Your task to perform on an android device: change notifications settings Image 0: 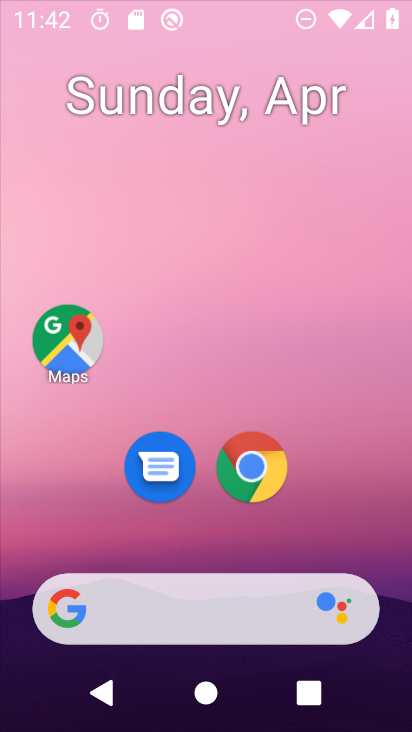
Step 0: drag from (348, 510) to (350, 311)
Your task to perform on an android device: change notifications settings Image 1: 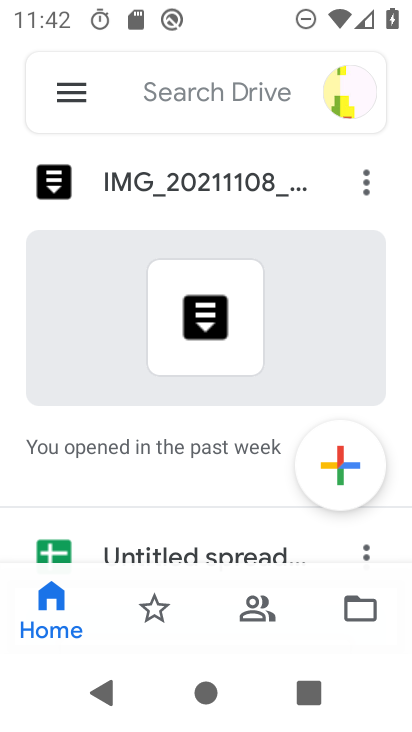
Step 1: press home button
Your task to perform on an android device: change notifications settings Image 2: 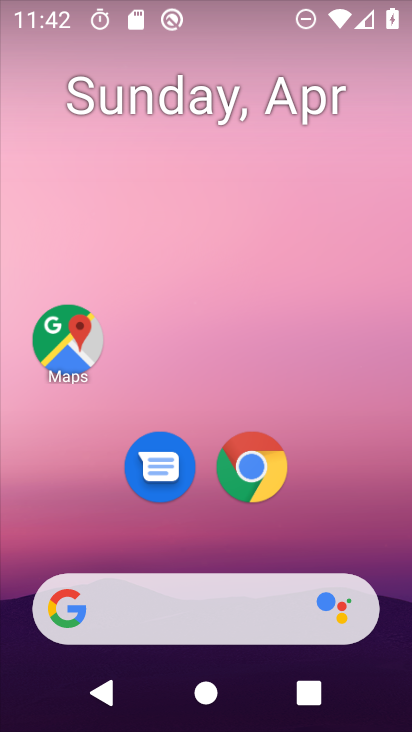
Step 2: drag from (361, 474) to (386, 147)
Your task to perform on an android device: change notifications settings Image 3: 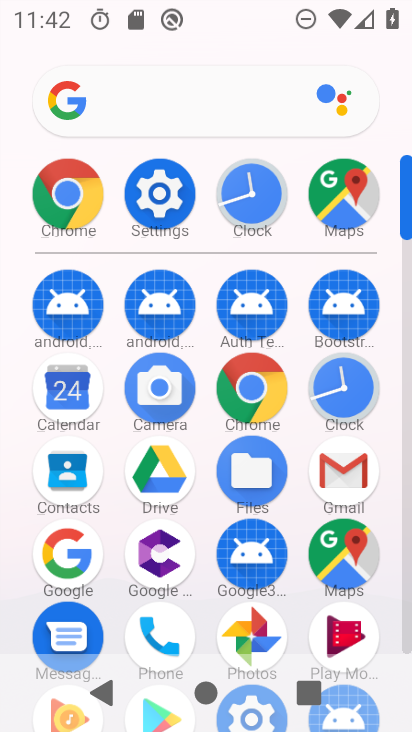
Step 3: click (151, 200)
Your task to perform on an android device: change notifications settings Image 4: 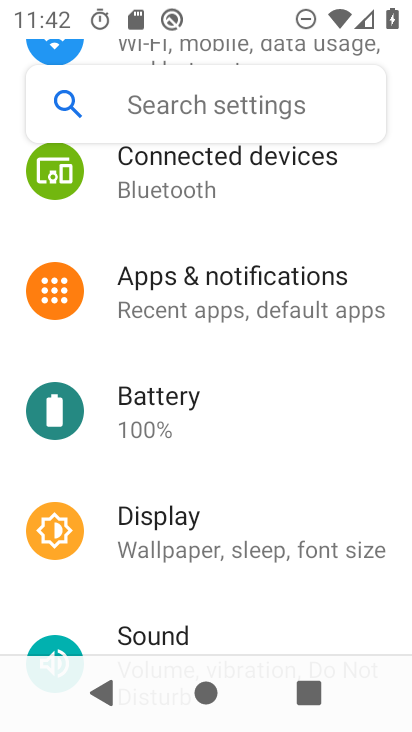
Step 4: drag from (369, 482) to (387, 291)
Your task to perform on an android device: change notifications settings Image 5: 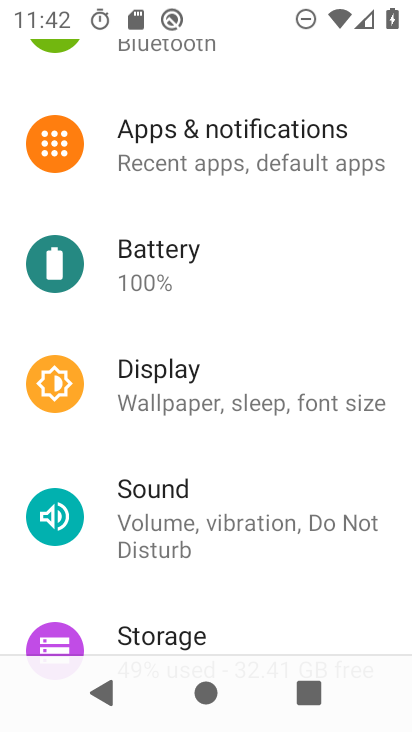
Step 5: drag from (354, 577) to (342, 335)
Your task to perform on an android device: change notifications settings Image 6: 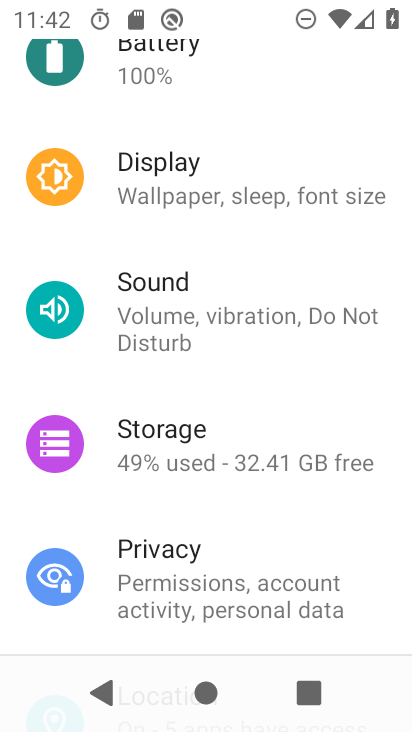
Step 6: drag from (366, 592) to (361, 294)
Your task to perform on an android device: change notifications settings Image 7: 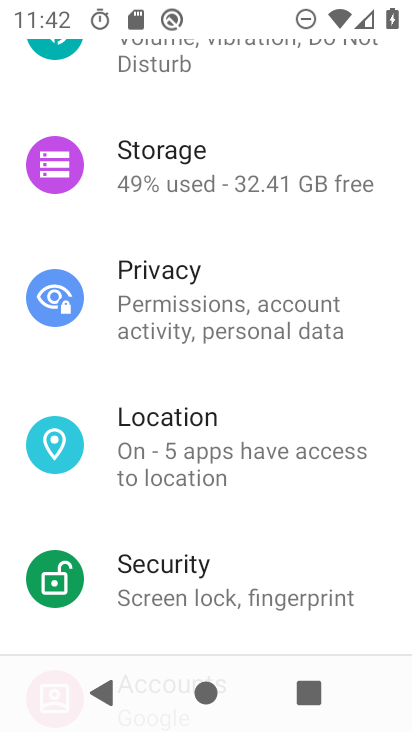
Step 7: drag from (348, 552) to (369, 294)
Your task to perform on an android device: change notifications settings Image 8: 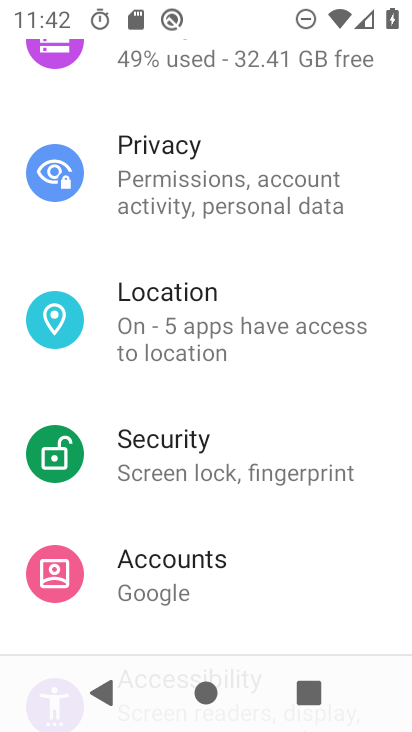
Step 8: drag from (394, 163) to (372, 413)
Your task to perform on an android device: change notifications settings Image 9: 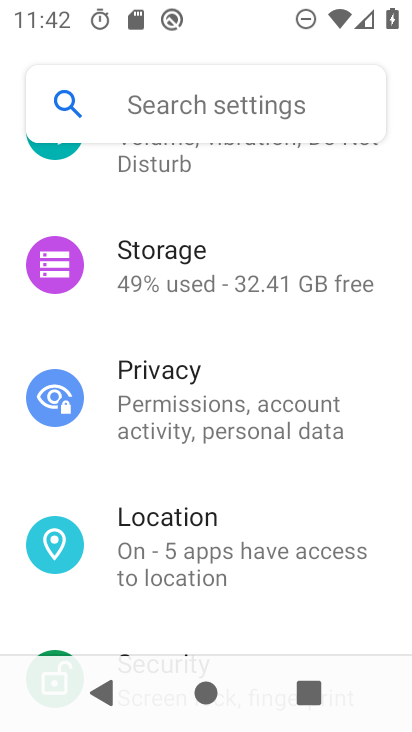
Step 9: drag from (383, 221) to (362, 402)
Your task to perform on an android device: change notifications settings Image 10: 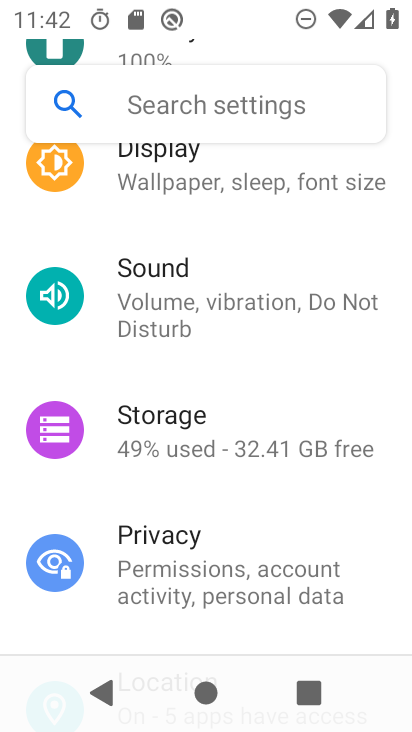
Step 10: drag from (378, 238) to (371, 411)
Your task to perform on an android device: change notifications settings Image 11: 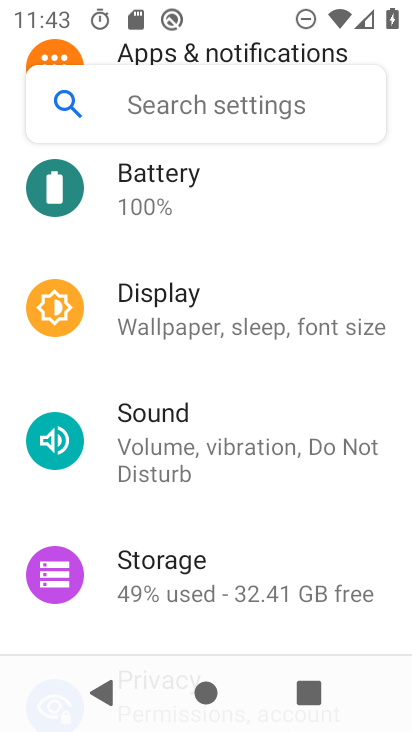
Step 11: drag from (373, 210) to (382, 410)
Your task to perform on an android device: change notifications settings Image 12: 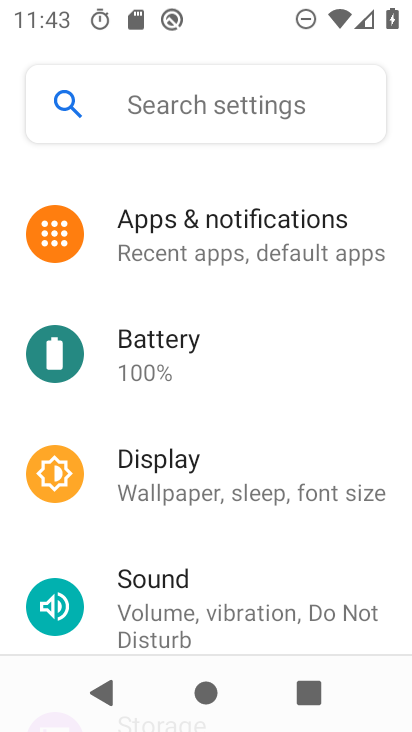
Step 12: click (303, 246)
Your task to perform on an android device: change notifications settings Image 13: 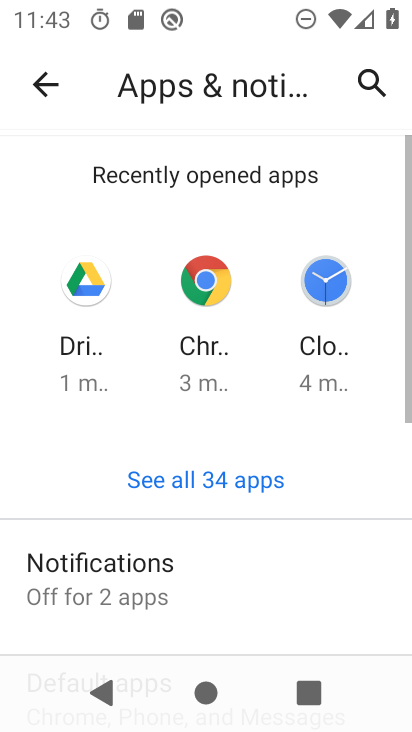
Step 13: drag from (283, 573) to (286, 380)
Your task to perform on an android device: change notifications settings Image 14: 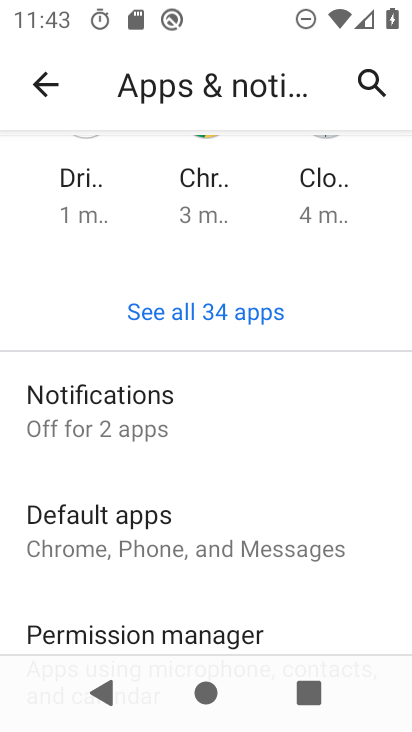
Step 14: click (124, 406)
Your task to perform on an android device: change notifications settings Image 15: 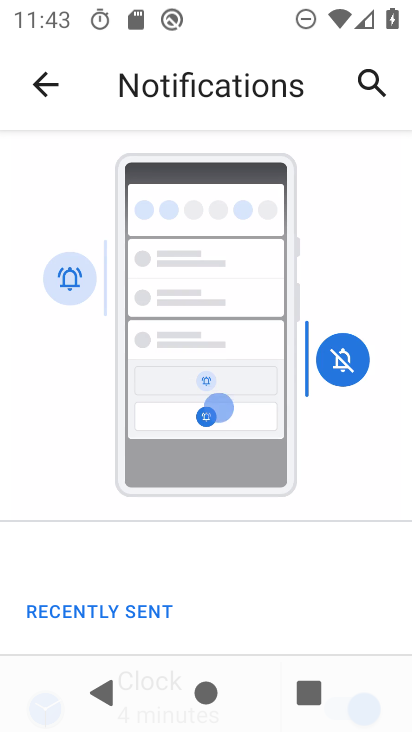
Step 15: drag from (295, 482) to (309, 238)
Your task to perform on an android device: change notifications settings Image 16: 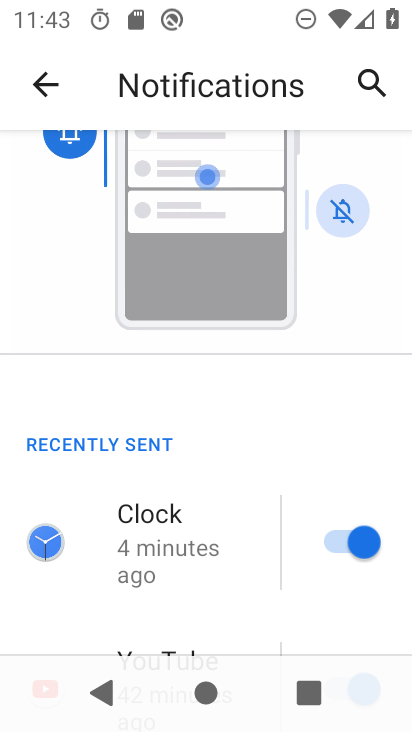
Step 16: drag from (226, 576) to (223, 398)
Your task to perform on an android device: change notifications settings Image 17: 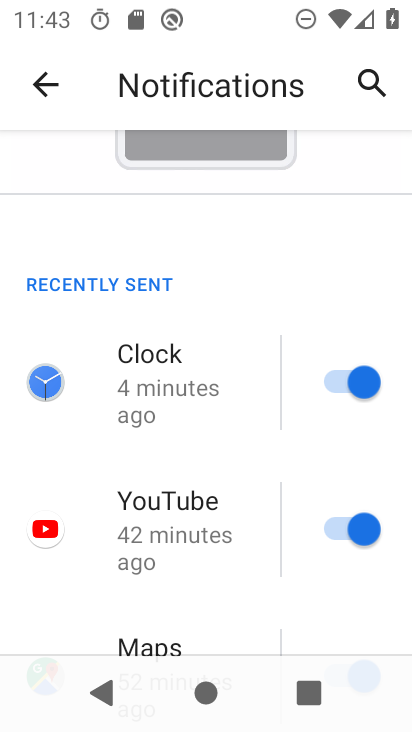
Step 17: drag from (225, 598) to (226, 493)
Your task to perform on an android device: change notifications settings Image 18: 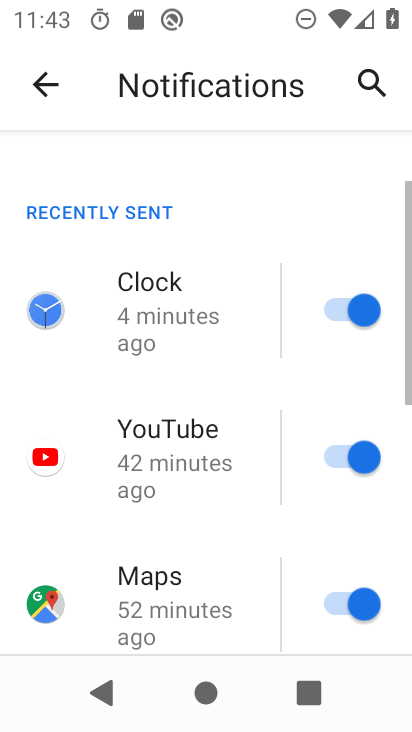
Step 18: click (350, 444)
Your task to perform on an android device: change notifications settings Image 19: 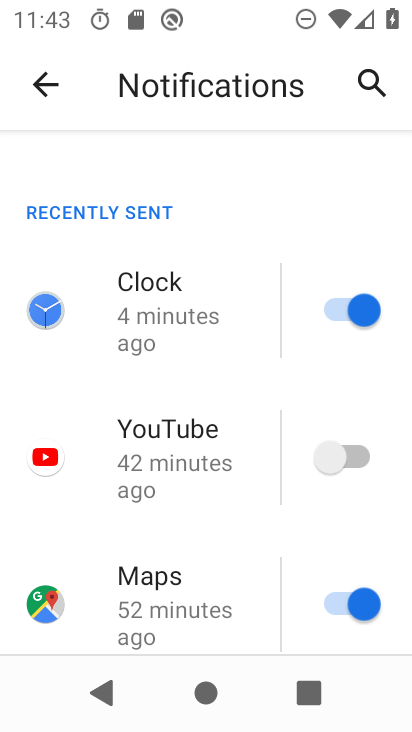
Step 19: click (352, 295)
Your task to perform on an android device: change notifications settings Image 20: 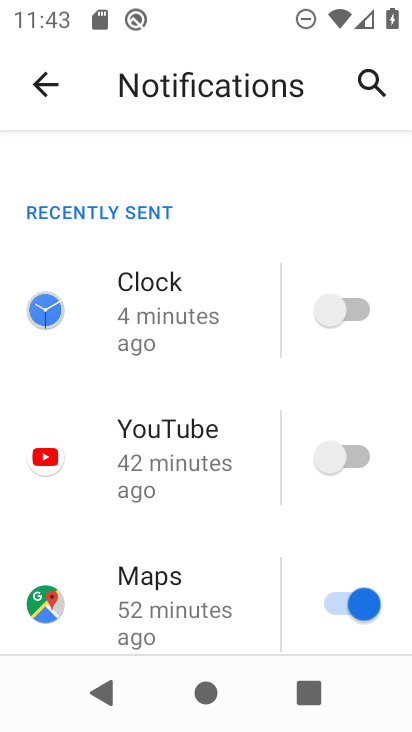
Step 20: click (363, 609)
Your task to perform on an android device: change notifications settings Image 21: 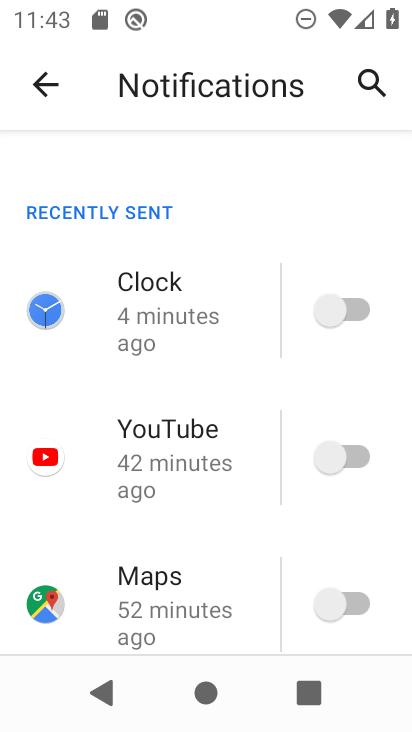
Step 21: task complete